Your task to perform on an android device: open device folders in google photos Image 0: 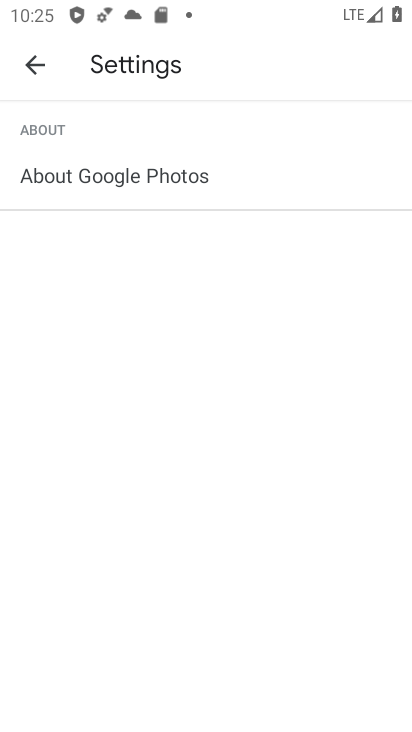
Step 0: press home button
Your task to perform on an android device: open device folders in google photos Image 1: 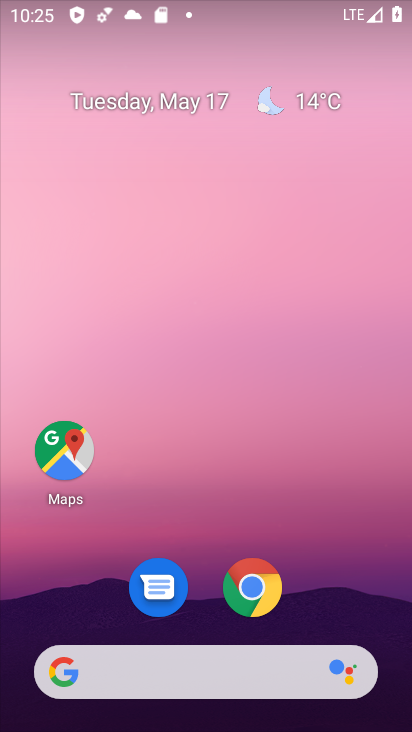
Step 1: drag from (309, 585) to (274, 403)
Your task to perform on an android device: open device folders in google photos Image 2: 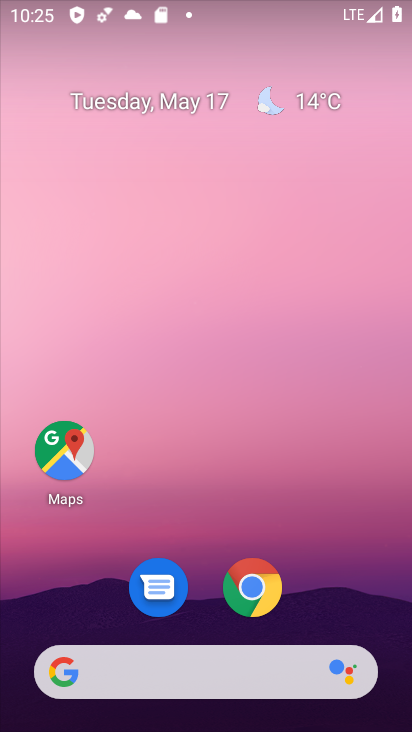
Step 2: drag from (315, 597) to (272, 181)
Your task to perform on an android device: open device folders in google photos Image 3: 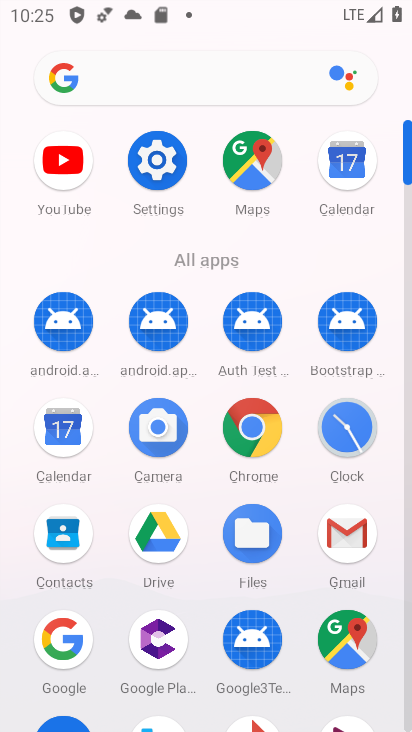
Step 3: drag from (299, 574) to (307, 340)
Your task to perform on an android device: open device folders in google photos Image 4: 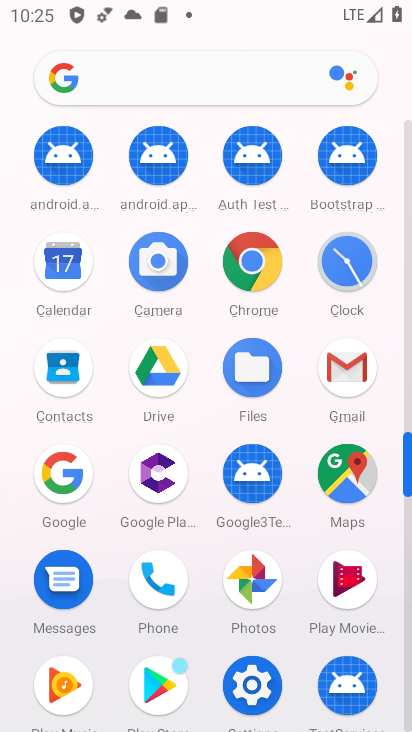
Step 4: click (261, 593)
Your task to perform on an android device: open device folders in google photos Image 5: 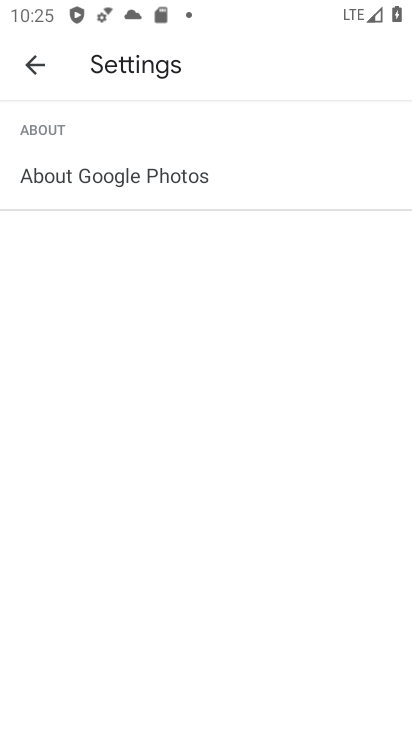
Step 5: click (42, 58)
Your task to perform on an android device: open device folders in google photos Image 6: 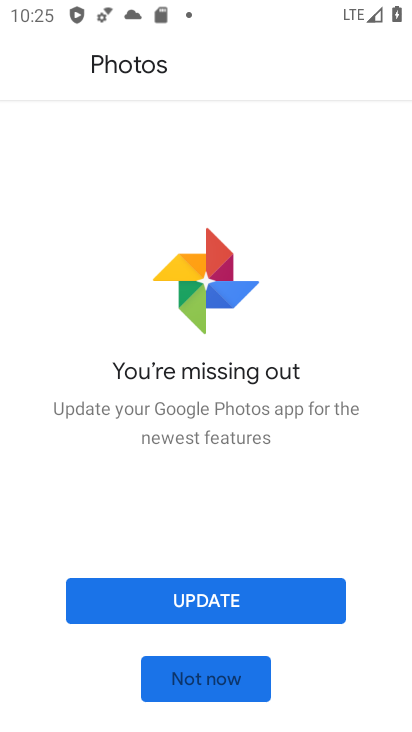
Step 6: click (229, 598)
Your task to perform on an android device: open device folders in google photos Image 7: 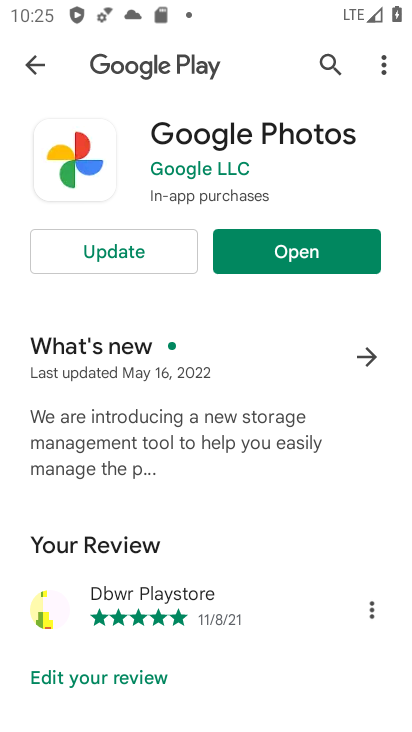
Step 7: click (155, 257)
Your task to perform on an android device: open device folders in google photos Image 8: 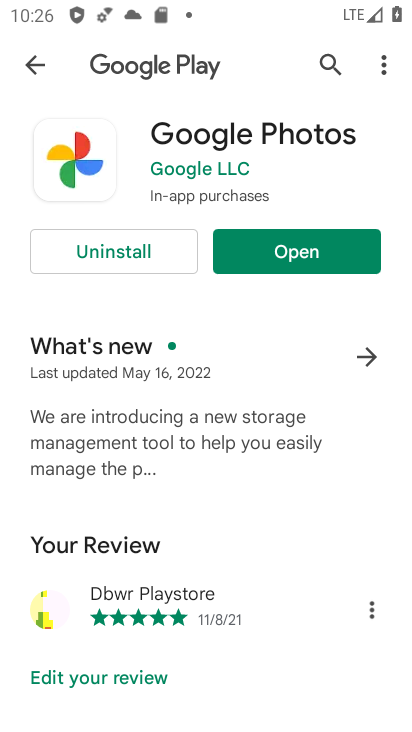
Step 8: click (312, 247)
Your task to perform on an android device: open device folders in google photos Image 9: 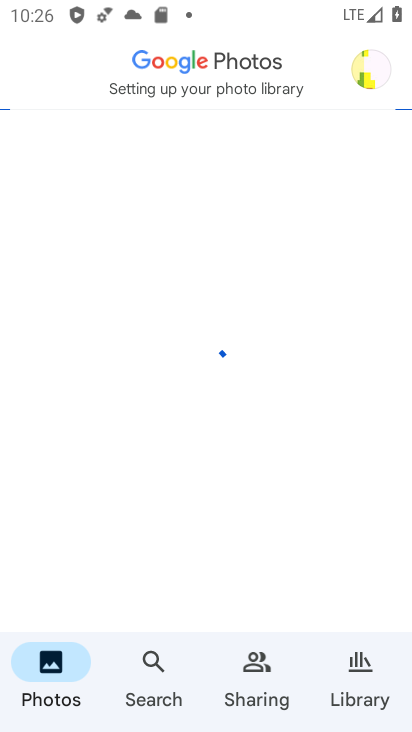
Step 9: click (368, 66)
Your task to perform on an android device: open device folders in google photos Image 10: 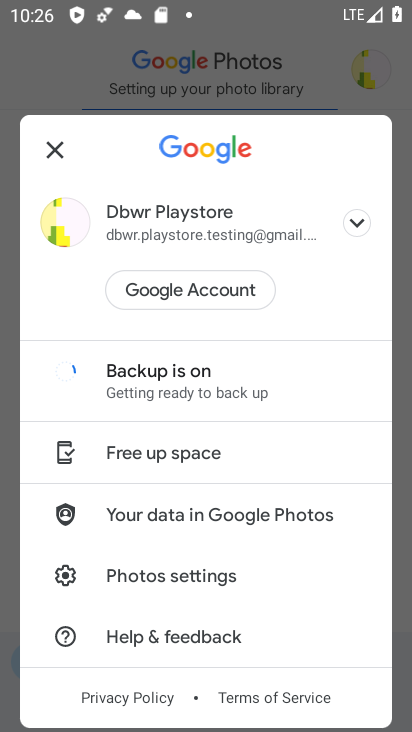
Step 10: click (361, 223)
Your task to perform on an android device: open device folders in google photos Image 11: 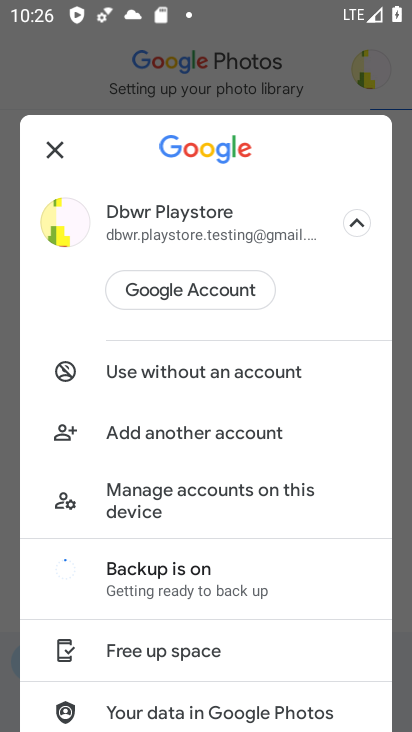
Step 11: click (58, 145)
Your task to perform on an android device: open device folders in google photos Image 12: 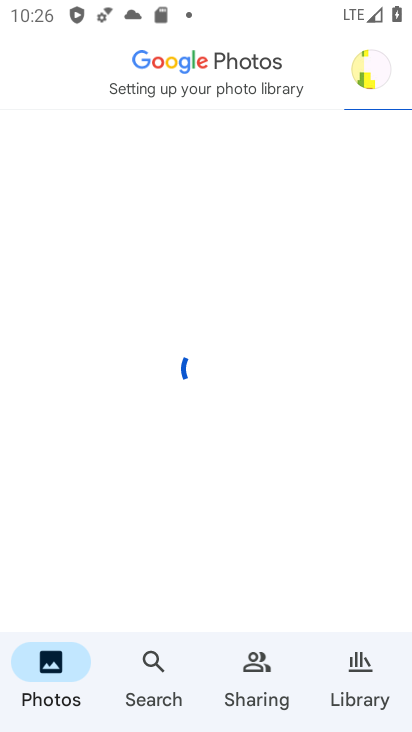
Step 12: click (158, 663)
Your task to perform on an android device: open device folders in google photos Image 13: 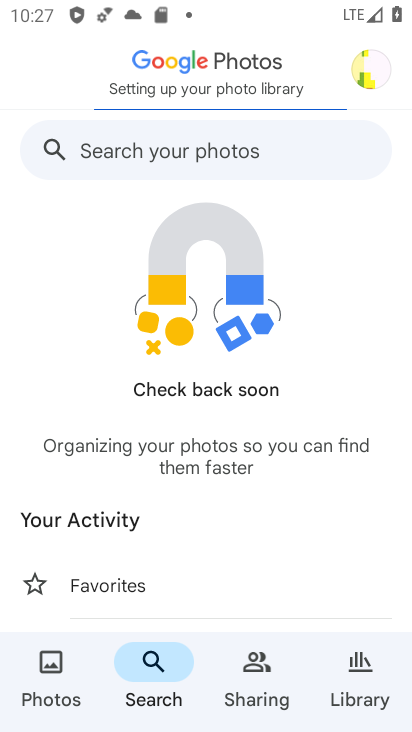
Step 13: task complete